Your task to perform on an android device: stop showing notifications on the lock screen Image 0: 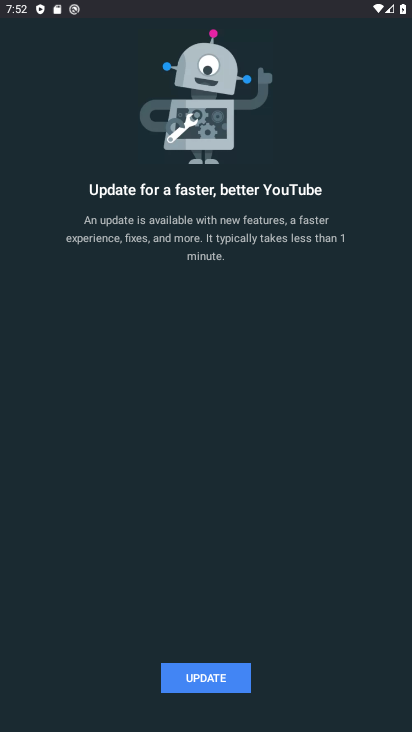
Step 0: press home button
Your task to perform on an android device: stop showing notifications on the lock screen Image 1: 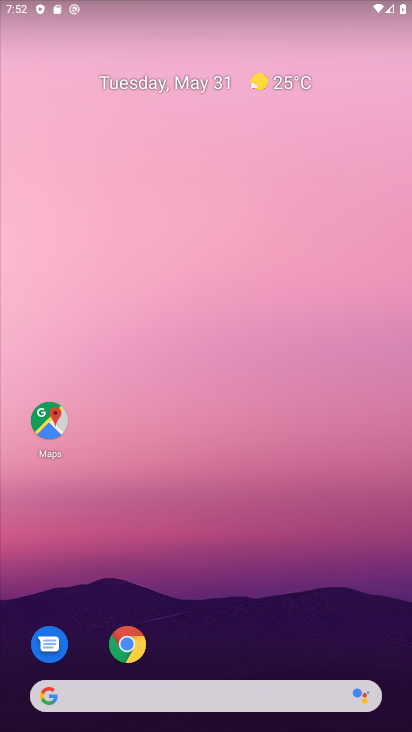
Step 1: drag from (223, 719) to (276, 34)
Your task to perform on an android device: stop showing notifications on the lock screen Image 2: 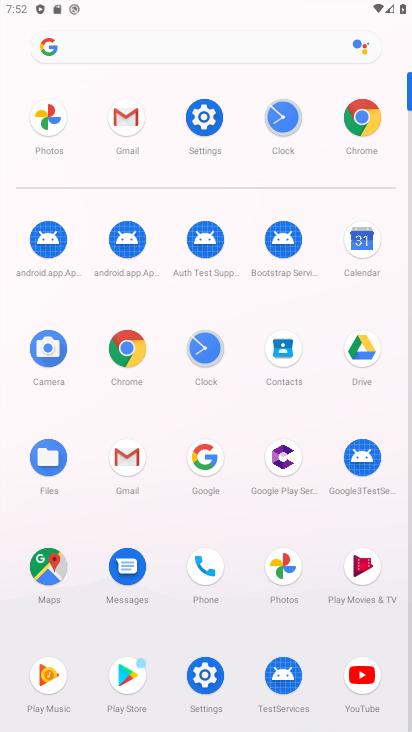
Step 2: click (186, 125)
Your task to perform on an android device: stop showing notifications on the lock screen Image 3: 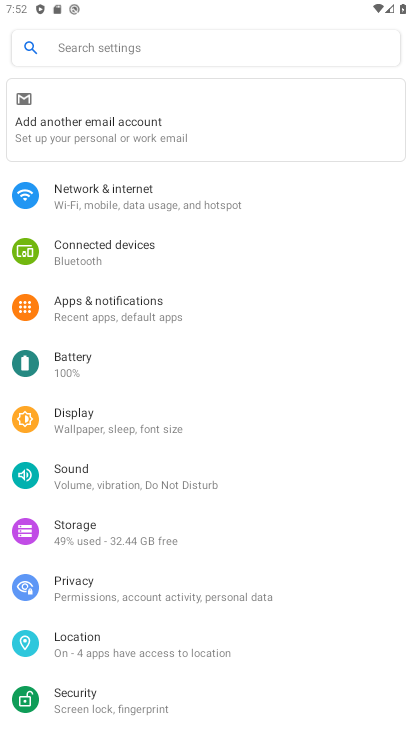
Step 3: click (129, 47)
Your task to perform on an android device: stop showing notifications on the lock screen Image 4: 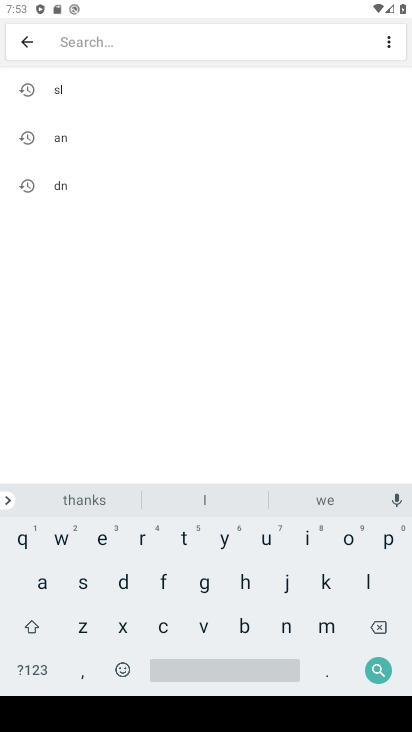
Step 4: click (86, 589)
Your task to perform on an android device: stop showing notifications on the lock screen Image 5: 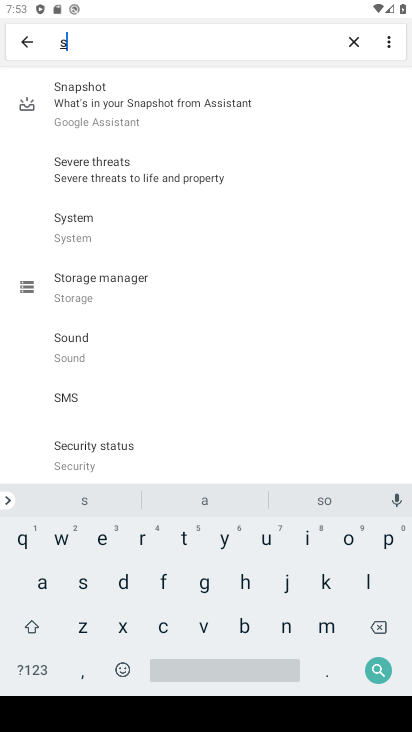
Step 5: click (353, 635)
Your task to perform on an android device: stop showing notifications on the lock screen Image 6: 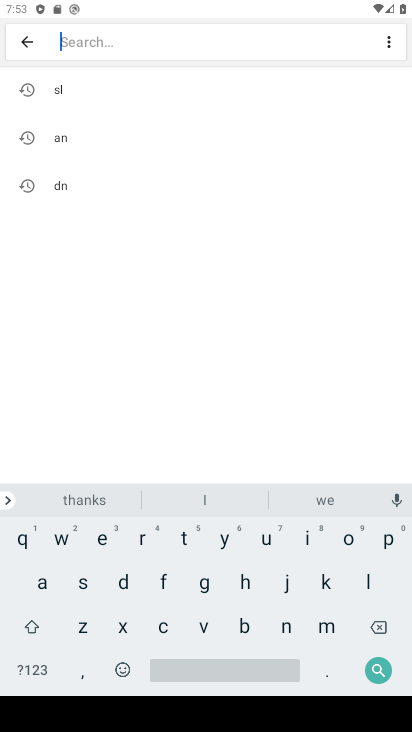
Step 6: click (282, 618)
Your task to perform on an android device: stop showing notifications on the lock screen Image 7: 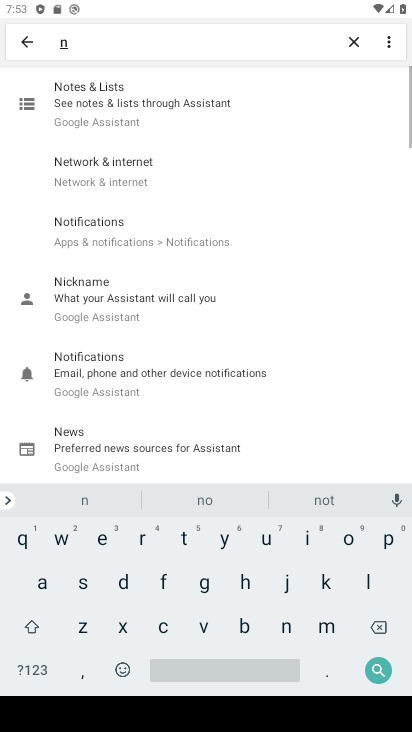
Step 7: click (352, 541)
Your task to perform on an android device: stop showing notifications on the lock screen Image 8: 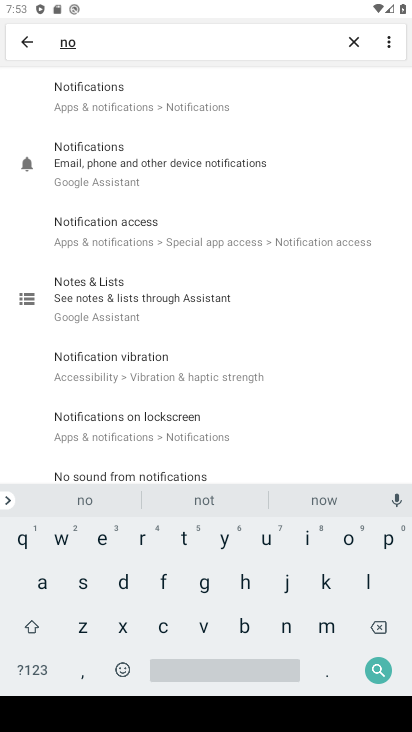
Step 8: click (120, 120)
Your task to perform on an android device: stop showing notifications on the lock screen Image 9: 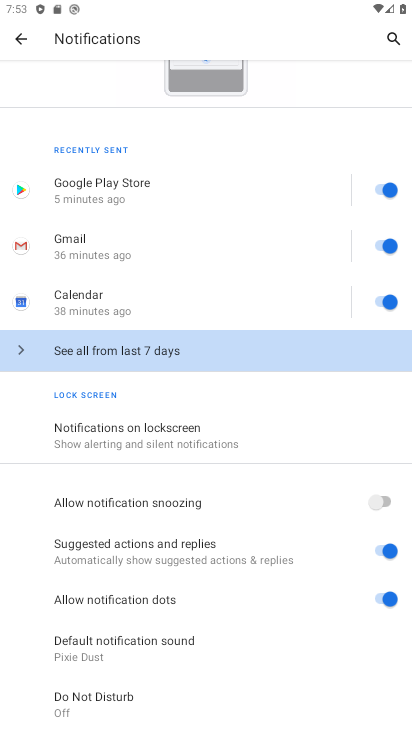
Step 9: click (104, 439)
Your task to perform on an android device: stop showing notifications on the lock screen Image 10: 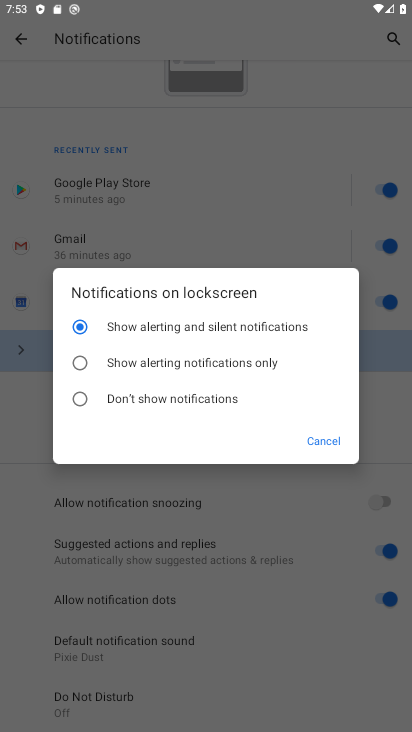
Step 10: task complete